Your task to perform on an android device: Do I have any events today? Image 0: 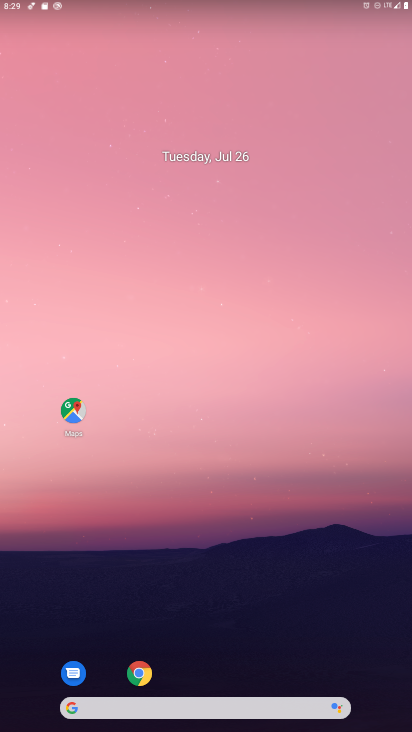
Step 0: drag from (348, 628) to (266, 87)
Your task to perform on an android device: Do I have any events today? Image 1: 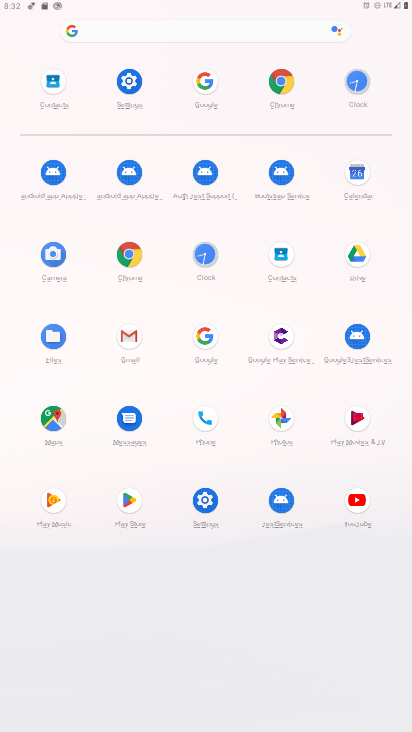
Step 1: click (348, 175)
Your task to perform on an android device: Do I have any events today? Image 2: 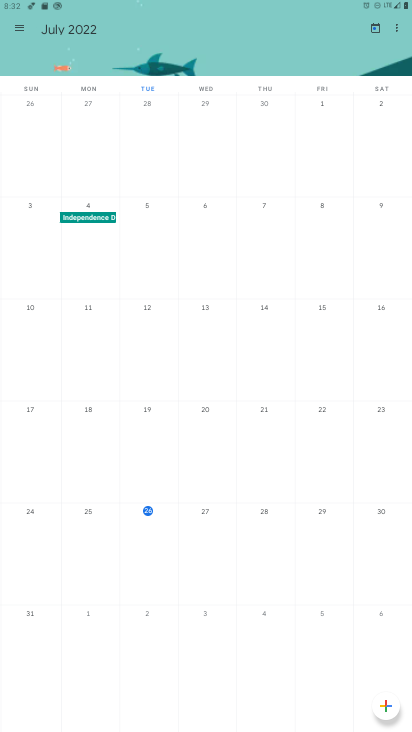
Step 2: task complete